Your task to perform on an android device: Do I have any events tomorrow? Image 0: 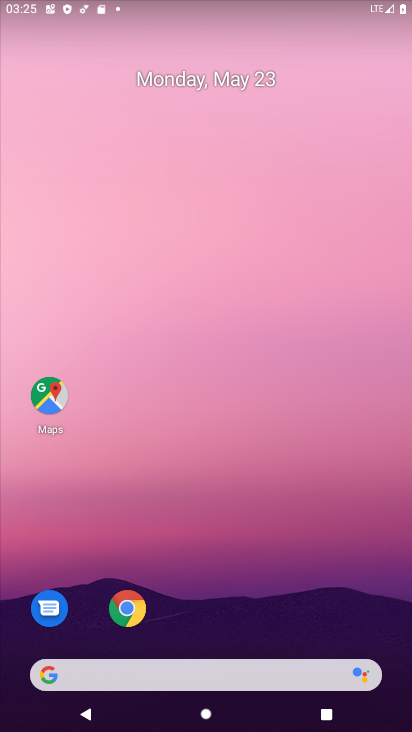
Step 0: drag from (247, 593) to (190, 177)
Your task to perform on an android device: Do I have any events tomorrow? Image 1: 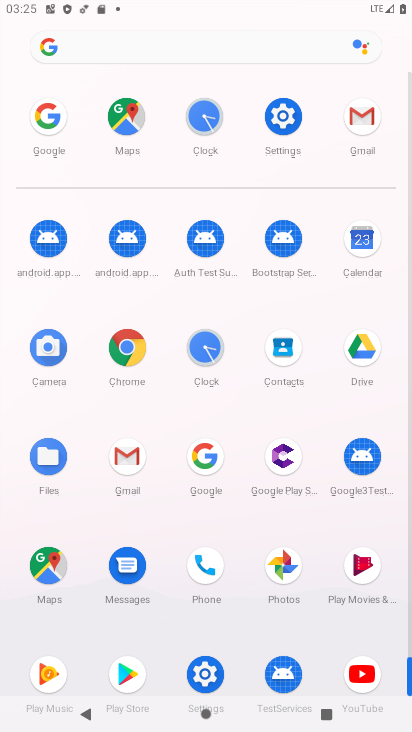
Step 1: click (364, 240)
Your task to perform on an android device: Do I have any events tomorrow? Image 2: 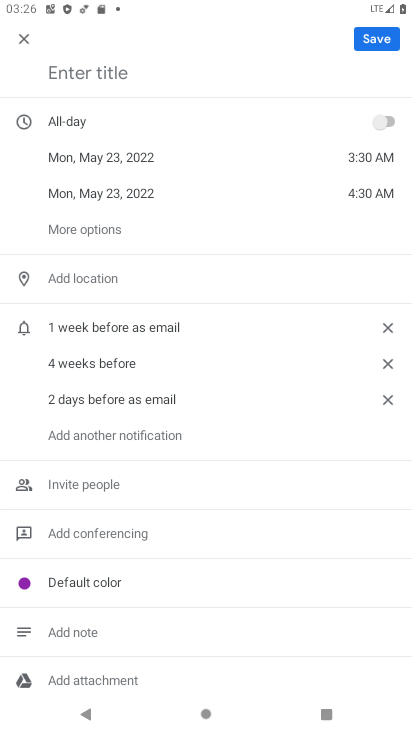
Step 2: click (23, 43)
Your task to perform on an android device: Do I have any events tomorrow? Image 3: 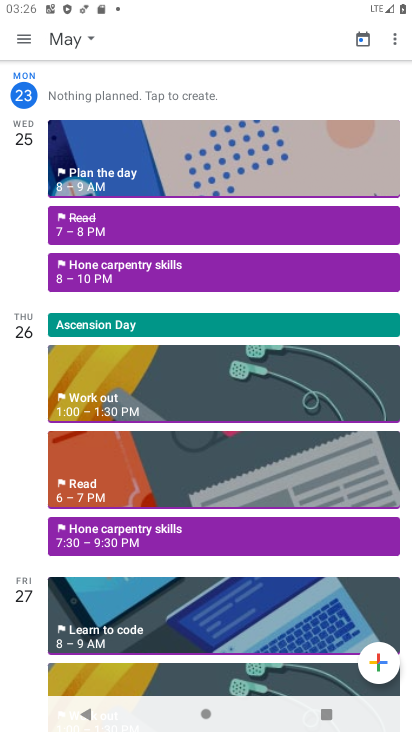
Step 3: click (365, 37)
Your task to perform on an android device: Do I have any events tomorrow? Image 4: 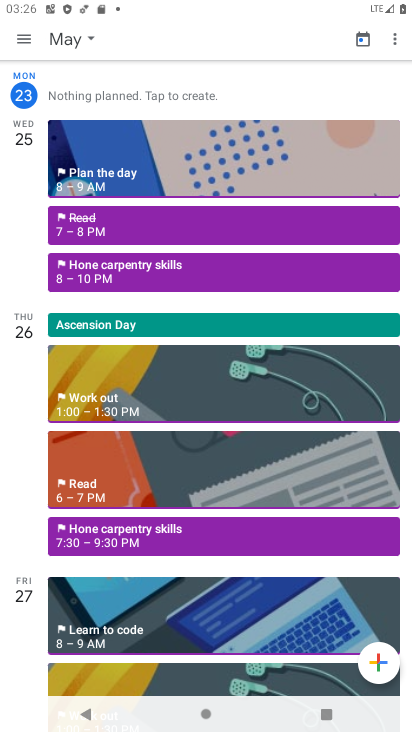
Step 4: click (85, 33)
Your task to perform on an android device: Do I have any events tomorrow? Image 5: 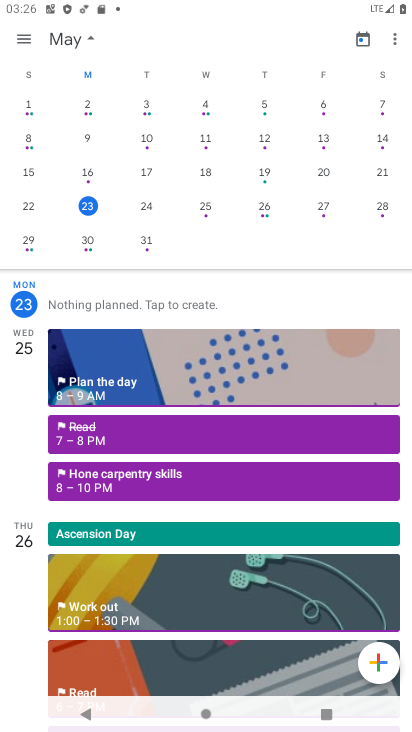
Step 5: click (149, 205)
Your task to perform on an android device: Do I have any events tomorrow? Image 6: 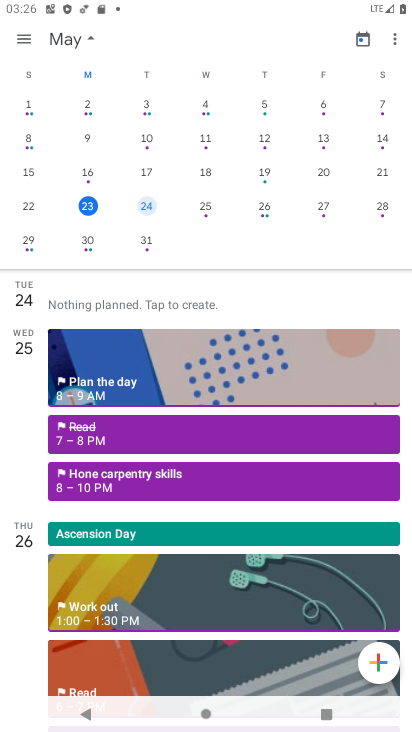
Step 6: click (188, 297)
Your task to perform on an android device: Do I have any events tomorrow? Image 7: 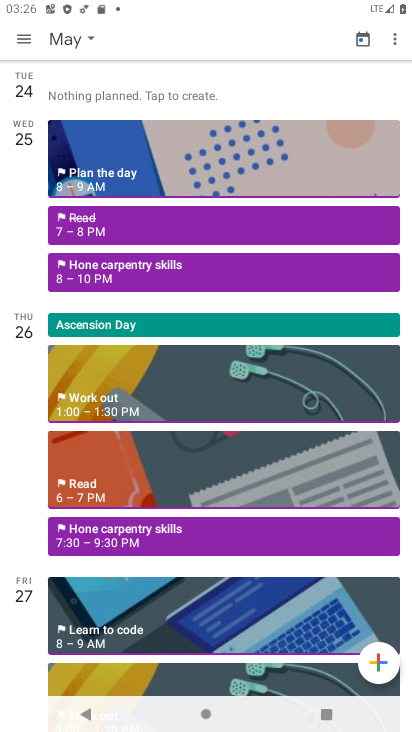
Step 7: task complete